Your task to perform on an android device: Open Android settings Image 0: 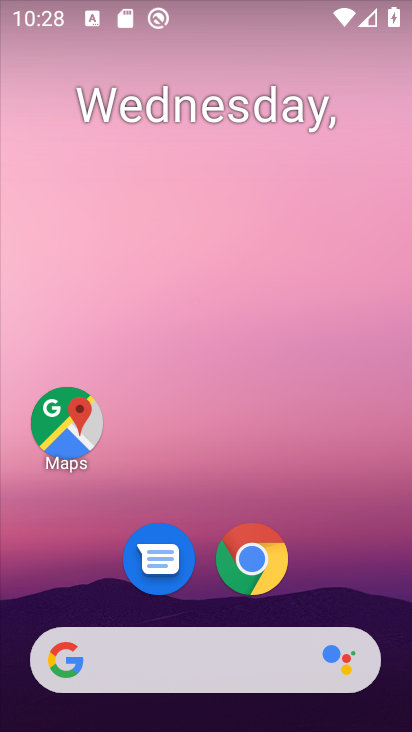
Step 0: drag from (294, 640) to (311, 181)
Your task to perform on an android device: Open Android settings Image 1: 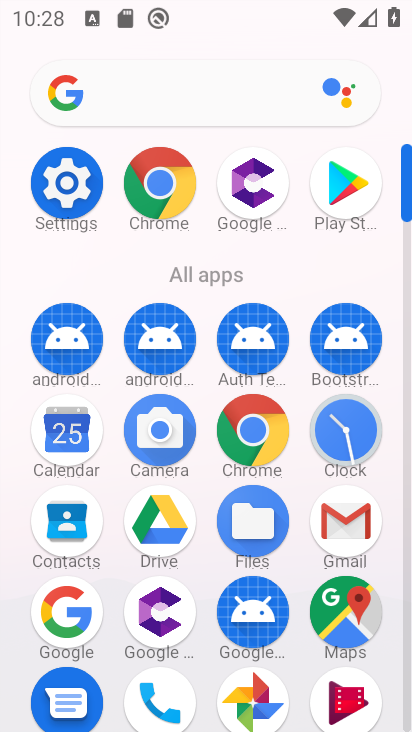
Step 1: click (69, 188)
Your task to perform on an android device: Open Android settings Image 2: 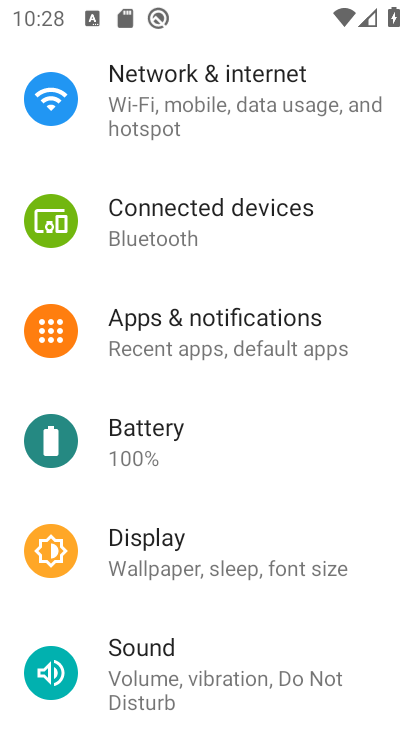
Step 2: drag from (209, 579) to (246, 170)
Your task to perform on an android device: Open Android settings Image 3: 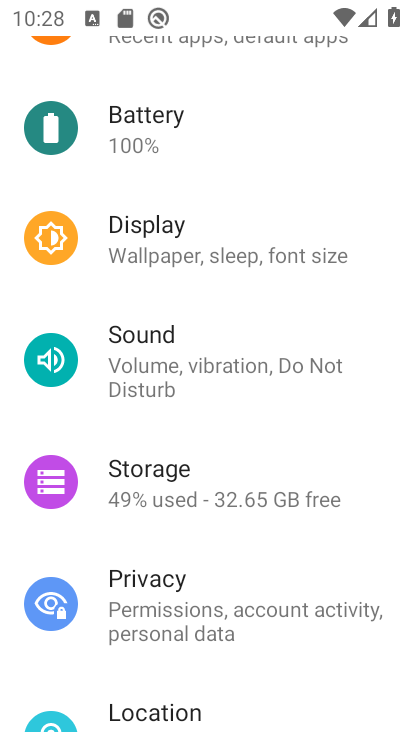
Step 3: drag from (232, 581) to (263, 215)
Your task to perform on an android device: Open Android settings Image 4: 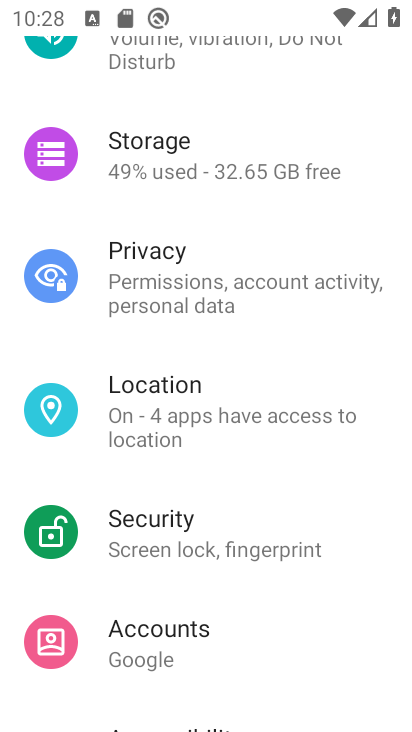
Step 4: drag from (213, 592) to (247, 82)
Your task to perform on an android device: Open Android settings Image 5: 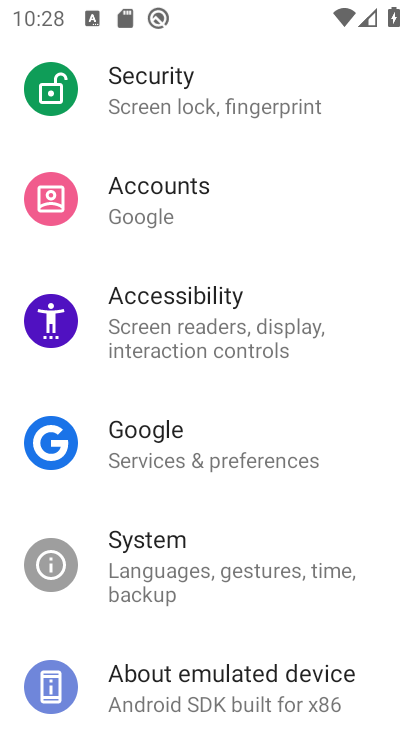
Step 5: drag from (175, 635) to (215, 186)
Your task to perform on an android device: Open Android settings Image 6: 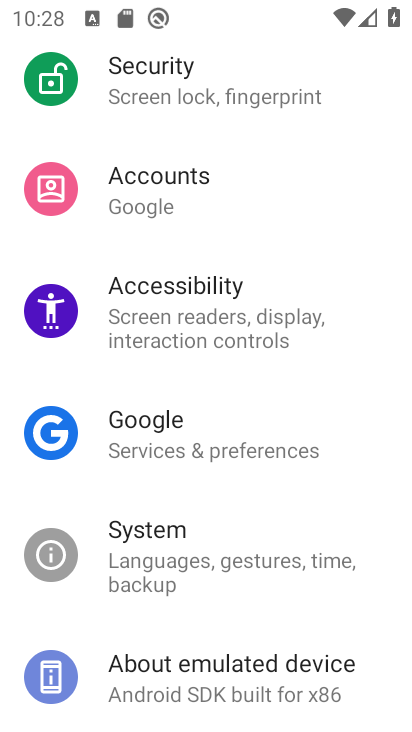
Step 6: click (259, 695)
Your task to perform on an android device: Open Android settings Image 7: 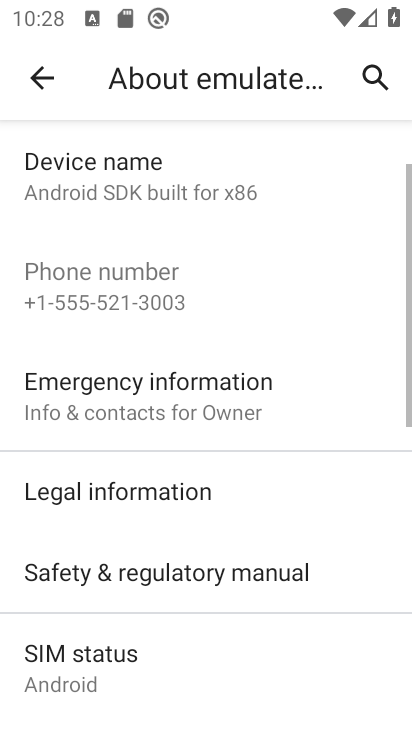
Step 7: drag from (199, 490) to (178, 255)
Your task to perform on an android device: Open Android settings Image 8: 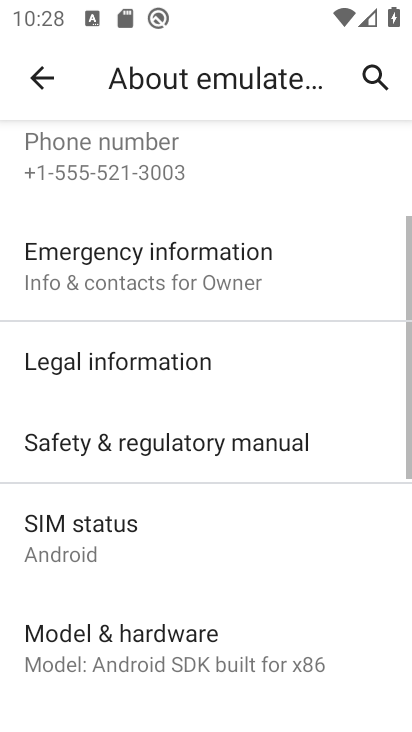
Step 8: drag from (169, 579) to (195, 139)
Your task to perform on an android device: Open Android settings Image 9: 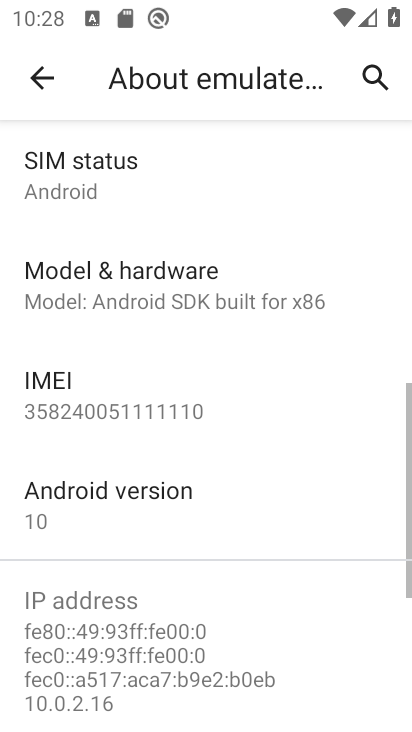
Step 9: click (183, 509)
Your task to perform on an android device: Open Android settings Image 10: 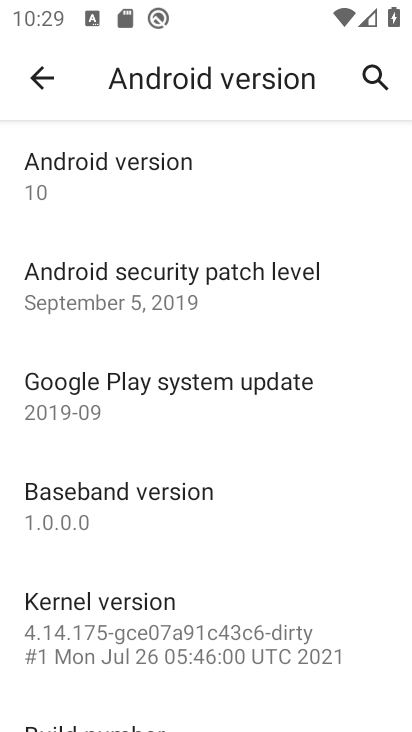
Step 10: task complete